Your task to perform on an android device: Open Google Maps and go to "Timeline" Image 0: 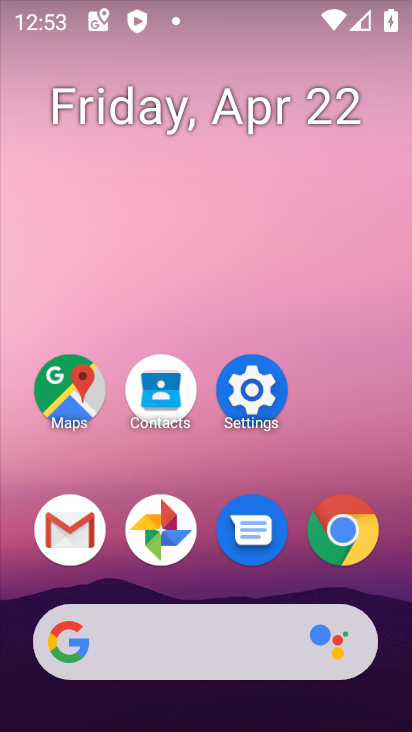
Step 0: click (55, 393)
Your task to perform on an android device: Open Google Maps and go to "Timeline" Image 1: 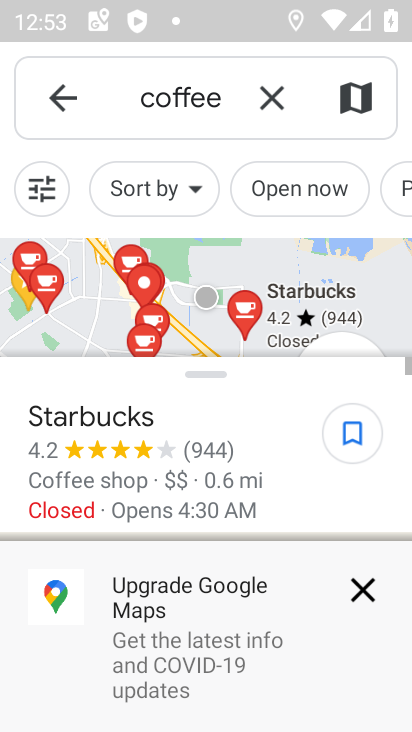
Step 1: click (53, 96)
Your task to perform on an android device: Open Google Maps and go to "Timeline" Image 2: 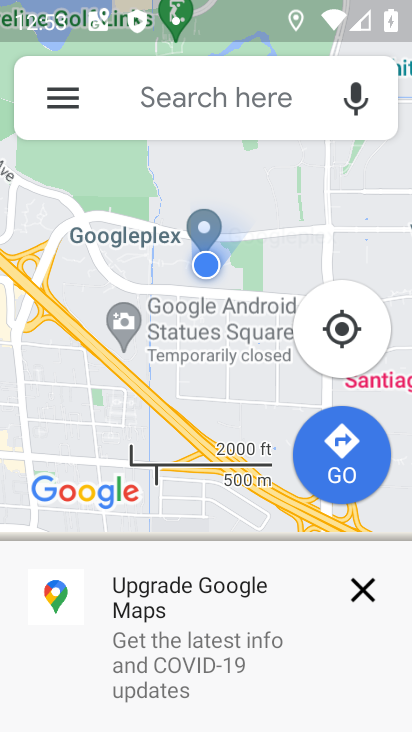
Step 2: click (65, 96)
Your task to perform on an android device: Open Google Maps and go to "Timeline" Image 3: 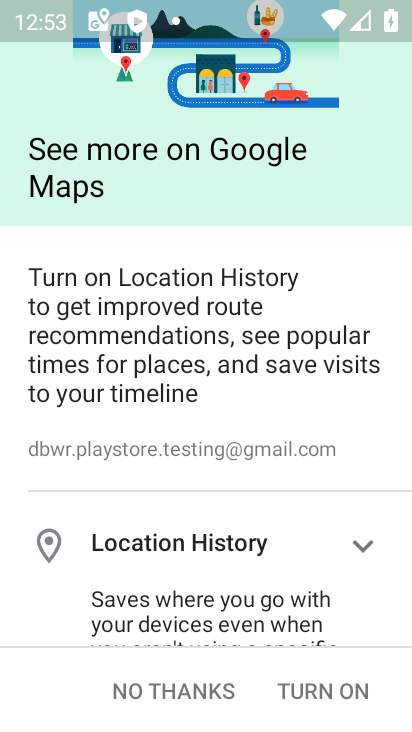
Step 3: click (327, 681)
Your task to perform on an android device: Open Google Maps and go to "Timeline" Image 4: 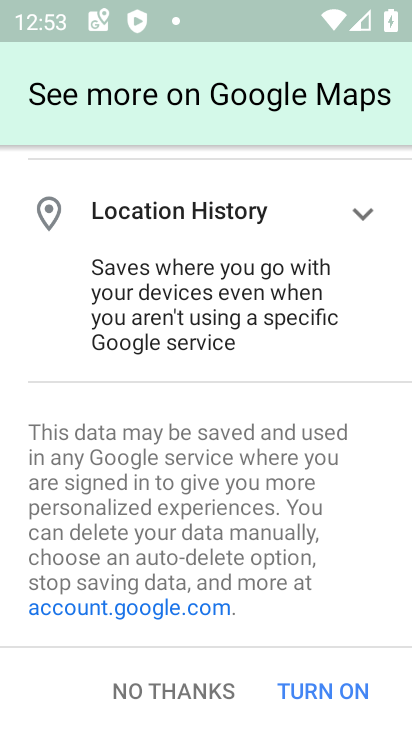
Step 4: click (336, 690)
Your task to perform on an android device: Open Google Maps and go to "Timeline" Image 5: 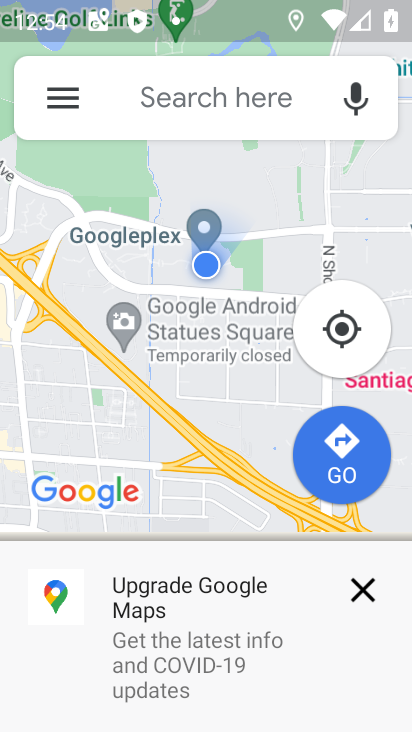
Step 5: click (64, 96)
Your task to perform on an android device: Open Google Maps and go to "Timeline" Image 6: 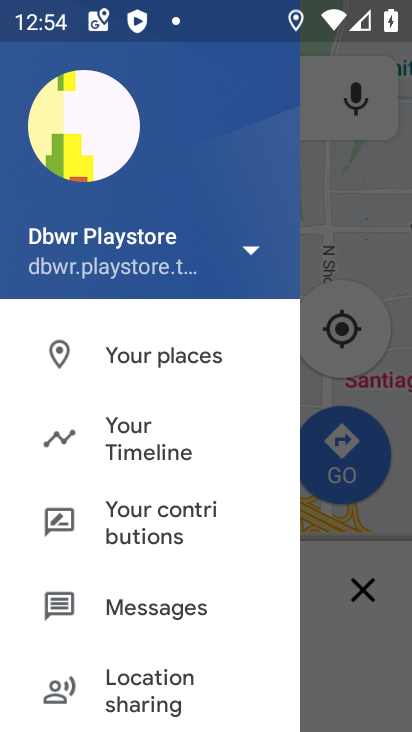
Step 6: click (130, 441)
Your task to perform on an android device: Open Google Maps and go to "Timeline" Image 7: 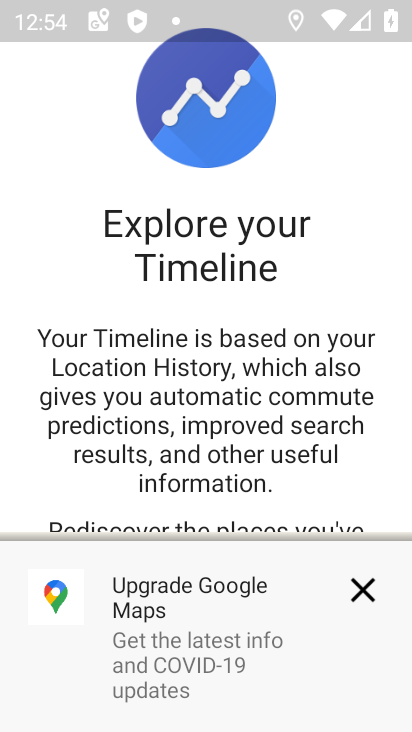
Step 7: click (360, 597)
Your task to perform on an android device: Open Google Maps and go to "Timeline" Image 8: 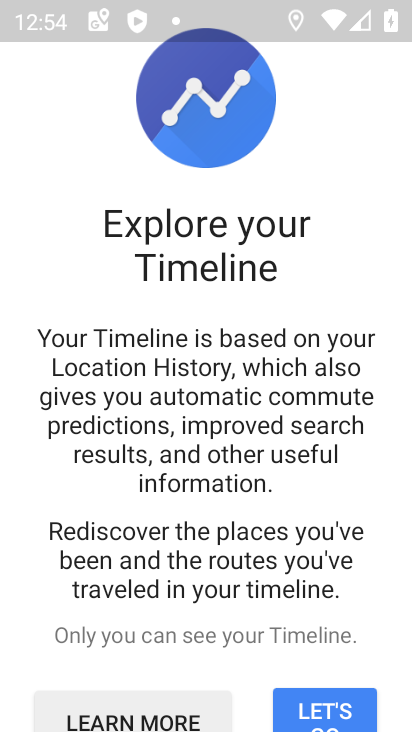
Step 8: click (338, 700)
Your task to perform on an android device: Open Google Maps and go to "Timeline" Image 9: 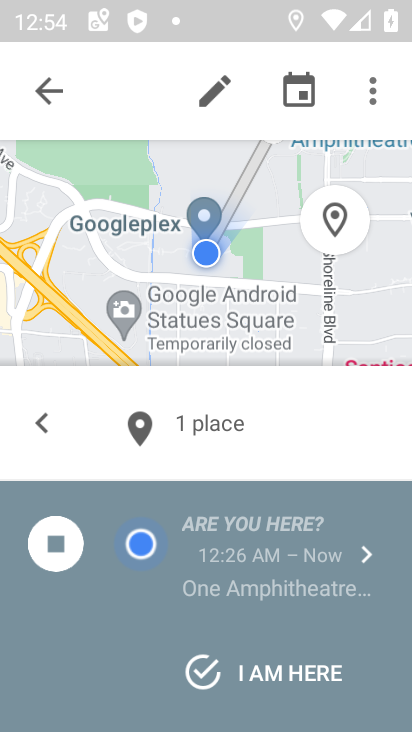
Step 9: task complete